Your task to perform on an android device: When is my next meeting? Image 0: 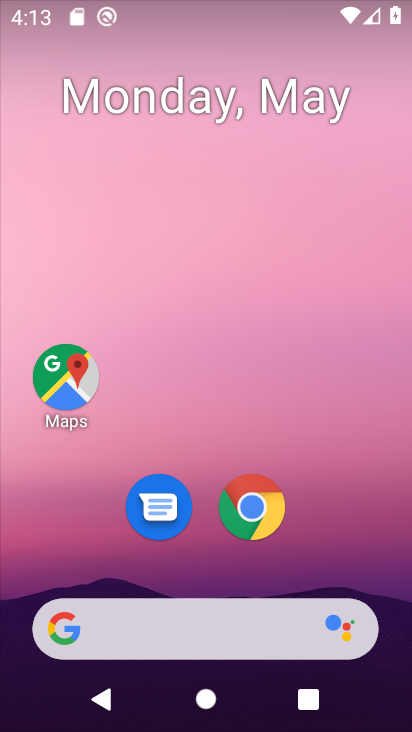
Step 0: drag from (375, 542) to (315, 7)
Your task to perform on an android device: When is my next meeting? Image 1: 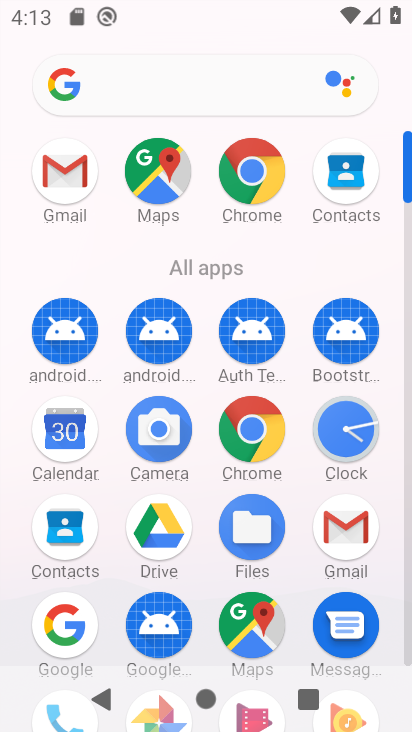
Step 1: click (47, 445)
Your task to perform on an android device: When is my next meeting? Image 2: 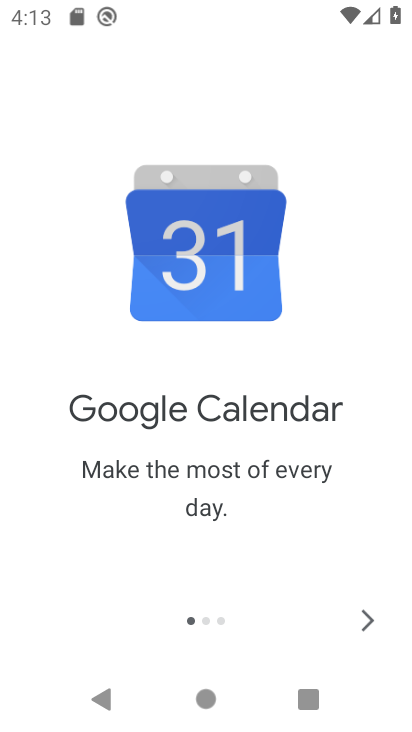
Step 2: click (351, 620)
Your task to perform on an android device: When is my next meeting? Image 3: 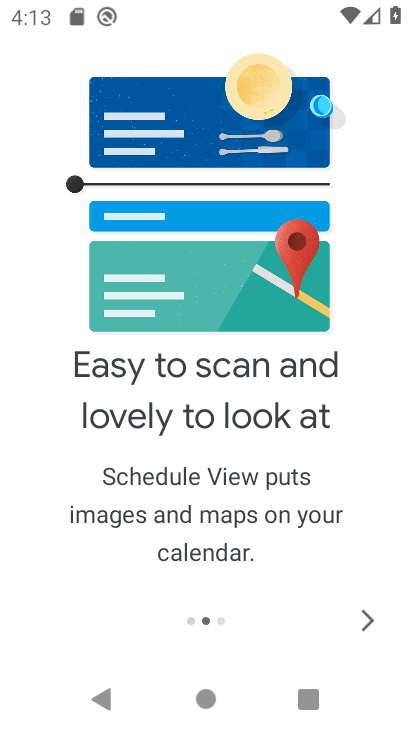
Step 3: click (351, 620)
Your task to perform on an android device: When is my next meeting? Image 4: 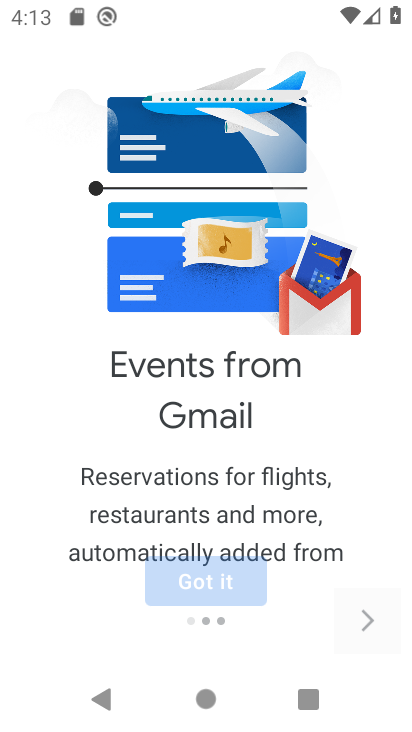
Step 4: click (351, 620)
Your task to perform on an android device: When is my next meeting? Image 5: 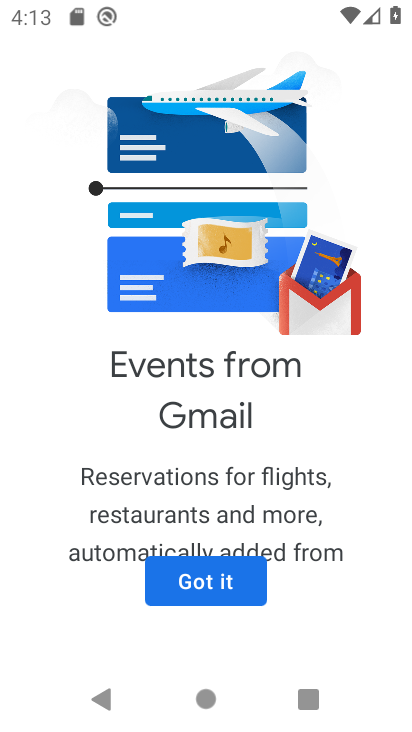
Step 5: click (273, 595)
Your task to perform on an android device: When is my next meeting? Image 6: 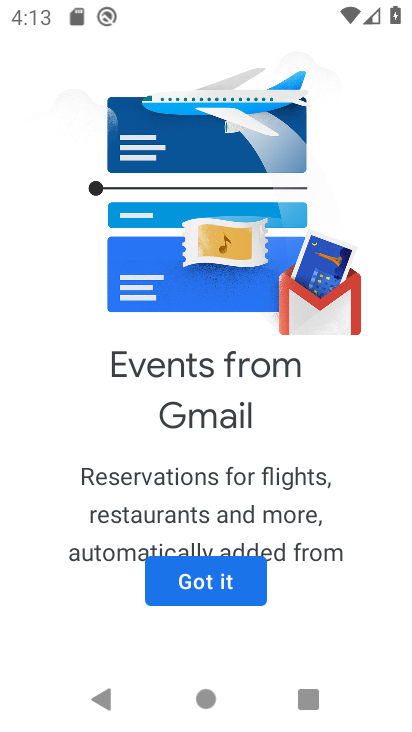
Step 6: click (246, 591)
Your task to perform on an android device: When is my next meeting? Image 7: 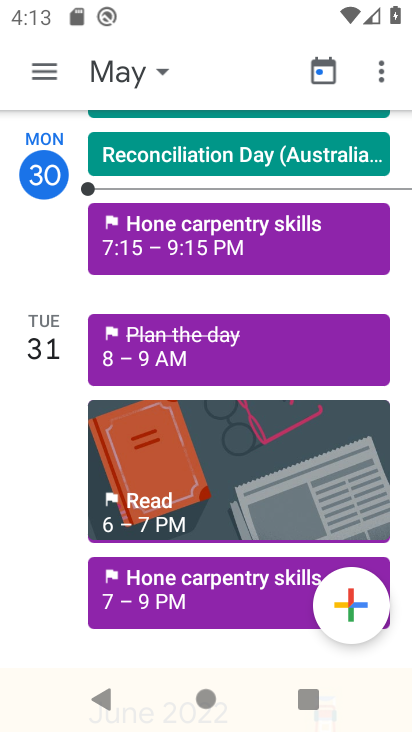
Step 7: click (171, 69)
Your task to perform on an android device: When is my next meeting? Image 8: 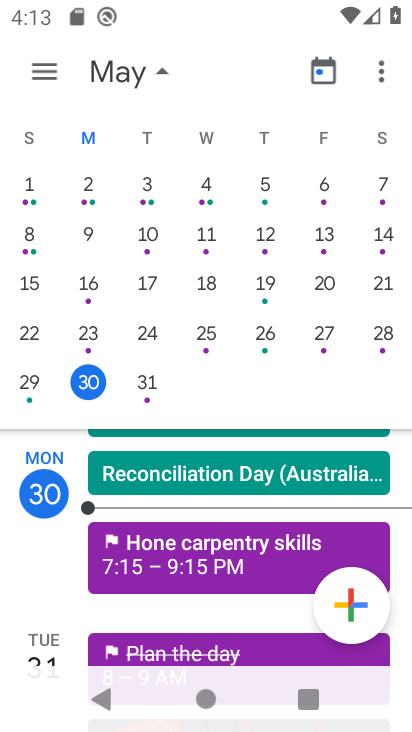
Step 8: click (171, 69)
Your task to perform on an android device: When is my next meeting? Image 9: 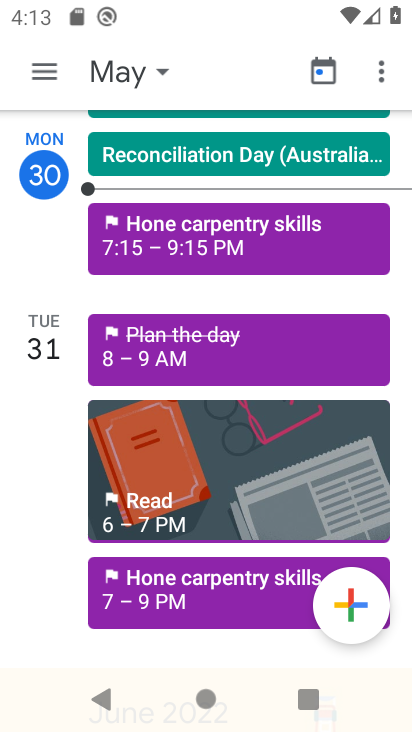
Step 9: task complete